Your task to perform on an android device: Go to Google maps Image 0: 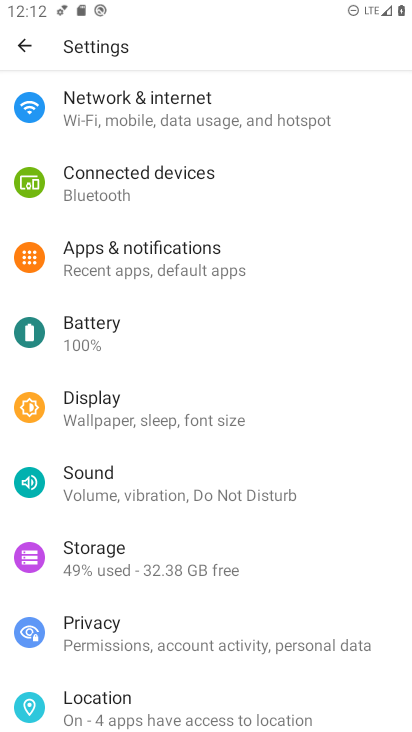
Step 0: press home button
Your task to perform on an android device: Go to Google maps Image 1: 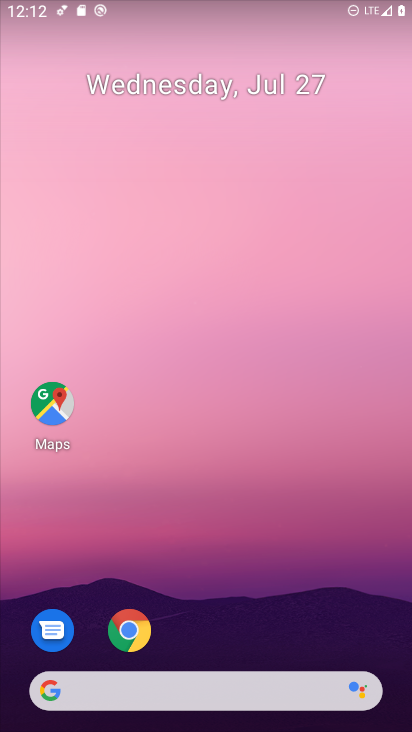
Step 1: click (54, 407)
Your task to perform on an android device: Go to Google maps Image 2: 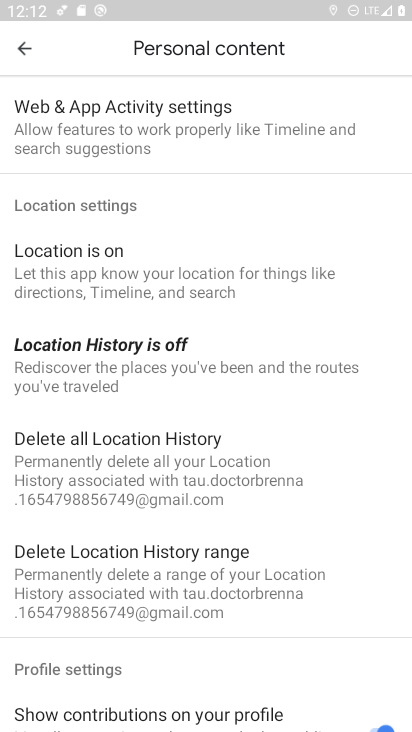
Step 2: task complete